Your task to perform on an android device: Open Yahoo.com Image 0: 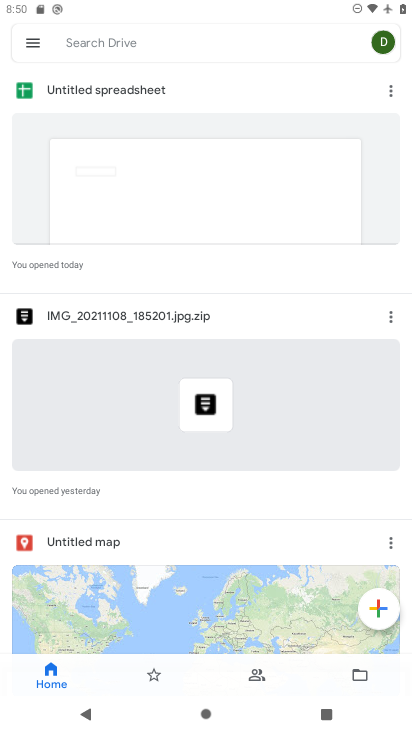
Step 0: press home button
Your task to perform on an android device: Open Yahoo.com Image 1: 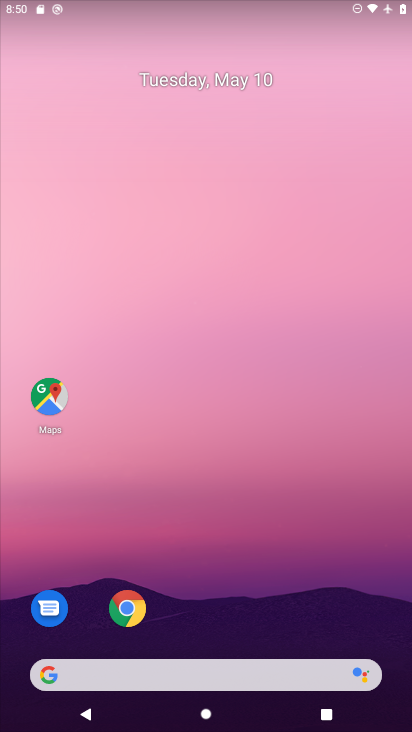
Step 1: drag from (236, 589) to (232, 185)
Your task to perform on an android device: Open Yahoo.com Image 2: 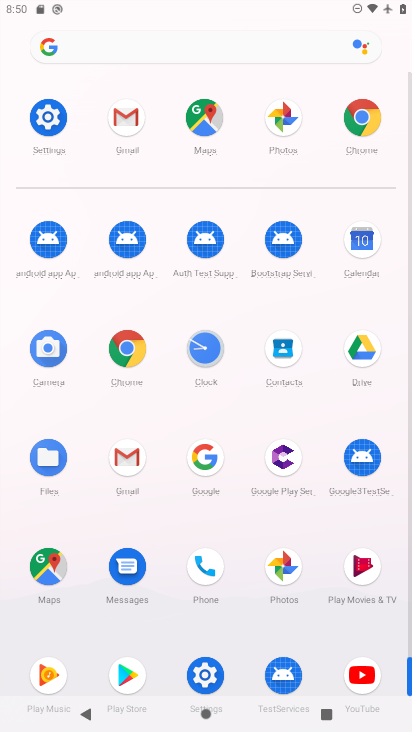
Step 2: click (132, 350)
Your task to perform on an android device: Open Yahoo.com Image 3: 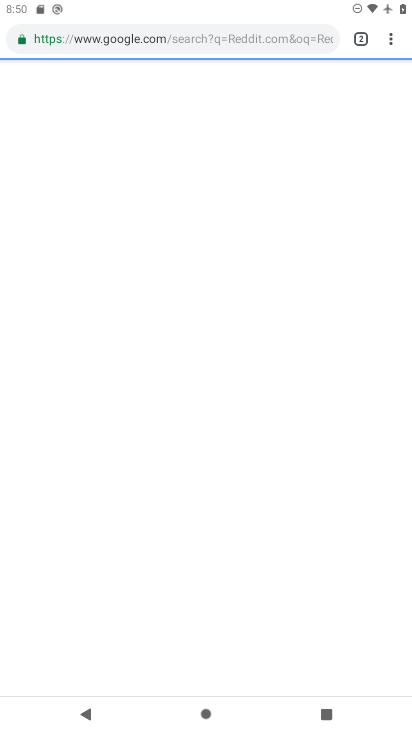
Step 3: click (378, 39)
Your task to perform on an android device: Open Yahoo.com Image 4: 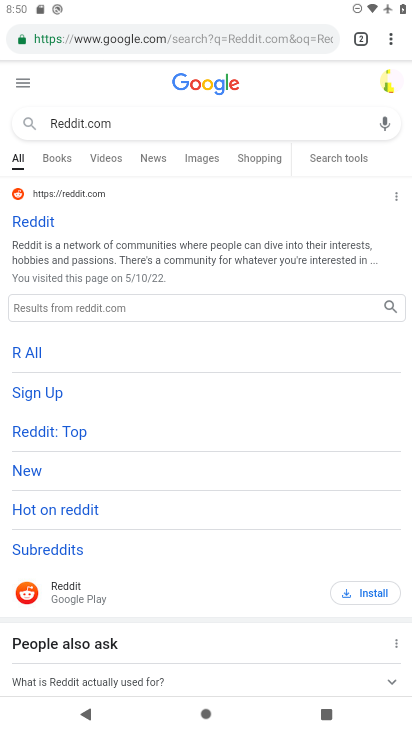
Step 4: click (382, 41)
Your task to perform on an android device: Open Yahoo.com Image 5: 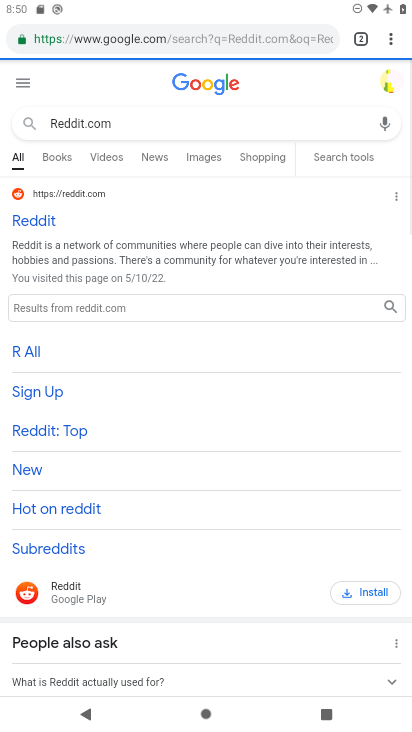
Step 5: click (382, 41)
Your task to perform on an android device: Open Yahoo.com Image 6: 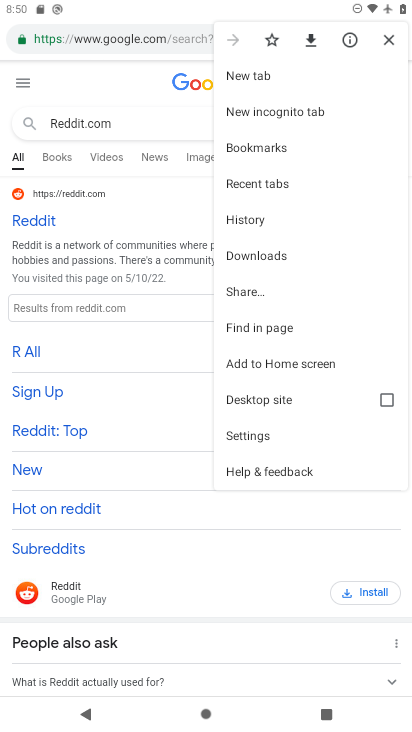
Step 6: click (271, 66)
Your task to perform on an android device: Open Yahoo.com Image 7: 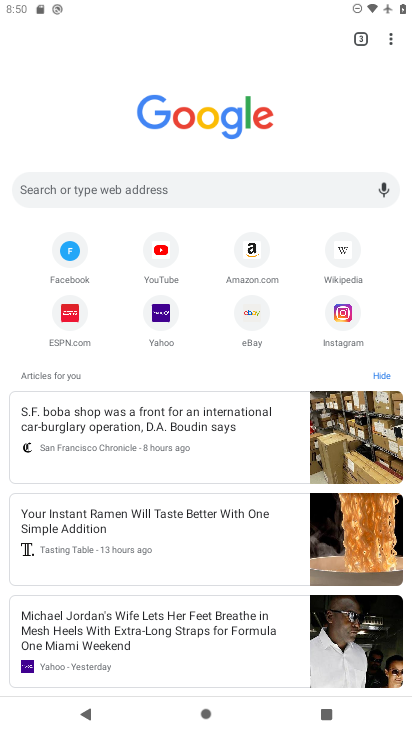
Step 7: click (162, 316)
Your task to perform on an android device: Open Yahoo.com Image 8: 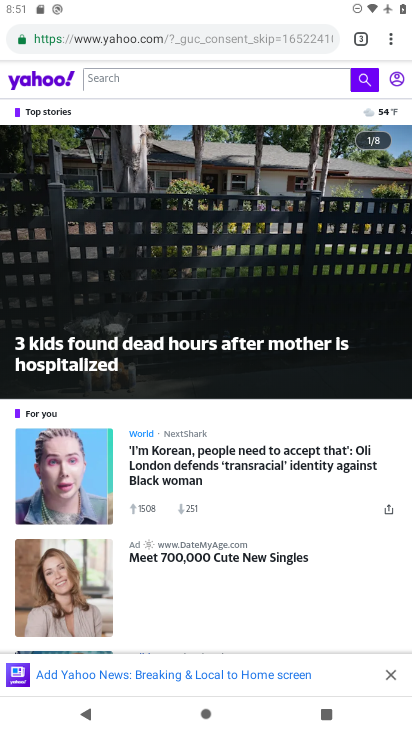
Step 8: task complete